Your task to perform on an android device: What's the weather going to be this weekend? Image 0: 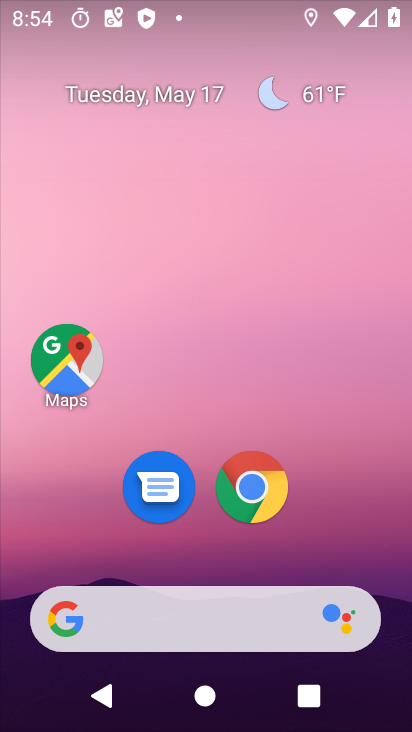
Step 0: click (326, 100)
Your task to perform on an android device: What's the weather going to be this weekend? Image 1: 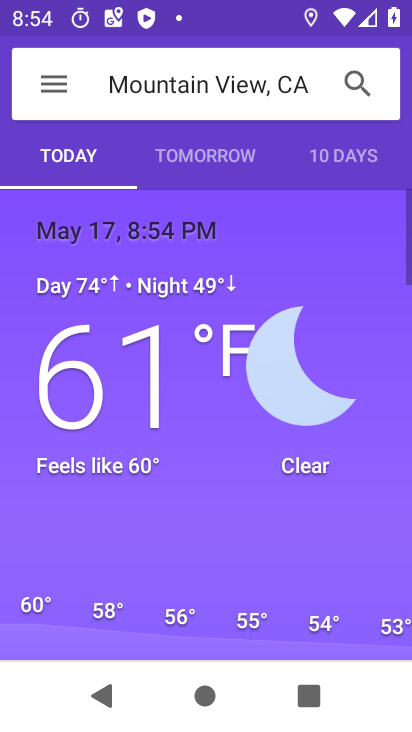
Step 1: click (335, 165)
Your task to perform on an android device: What's the weather going to be this weekend? Image 2: 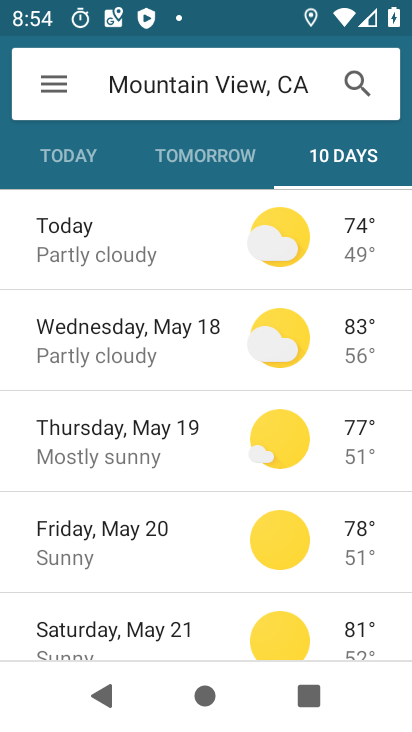
Step 2: drag from (329, 606) to (356, 193)
Your task to perform on an android device: What's the weather going to be this weekend? Image 3: 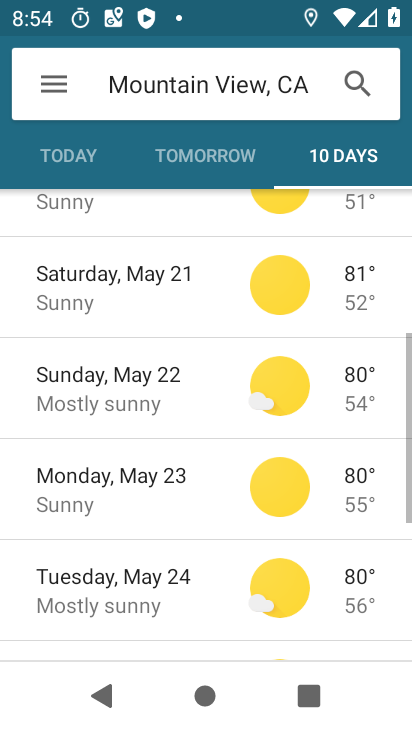
Step 3: click (196, 280)
Your task to perform on an android device: What's the weather going to be this weekend? Image 4: 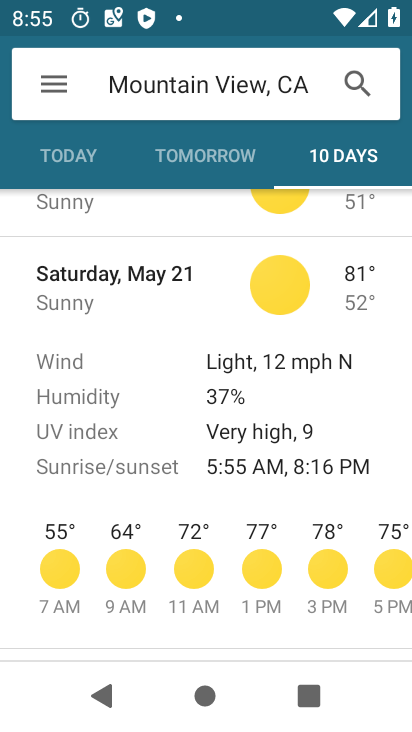
Step 4: task complete